Your task to perform on an android device: Go to Google Image 0: 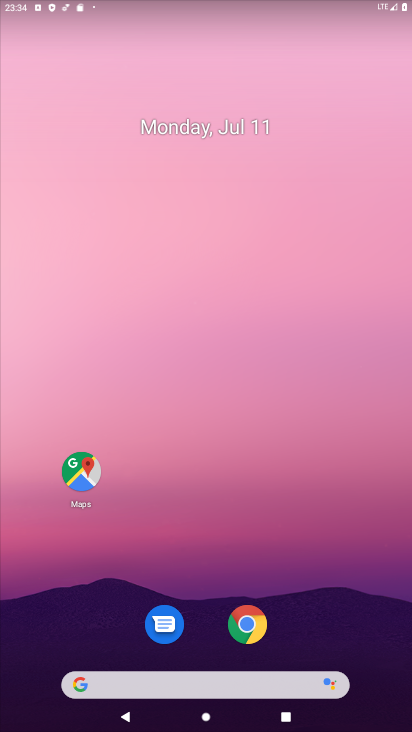
Step 0: drag from (201, 651) to (214, 161)
Your task to perform on an android device: Go to Google Image 1: 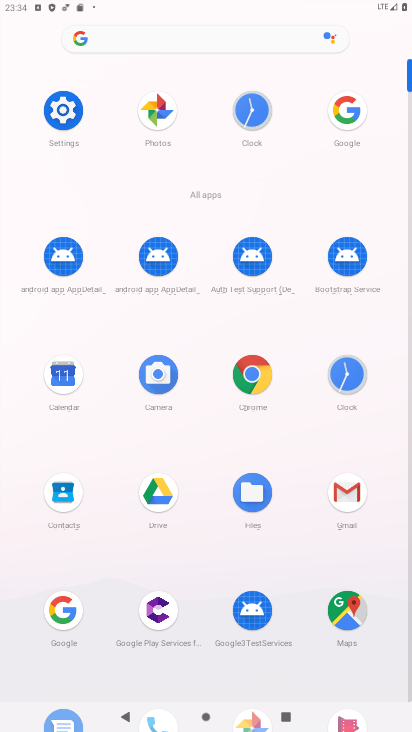
Step 1: click (361, 109)
Your task to perform on an android device: Go to Google Image 2: 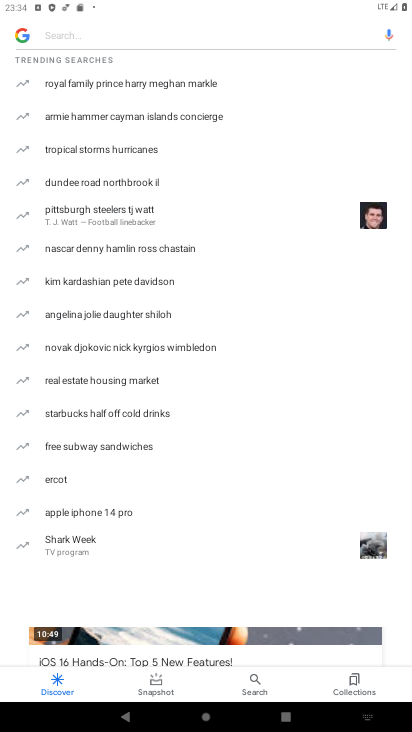
Step 2: task complete